Your task to perform on an android device: empty trash in the gmail app Image 0: 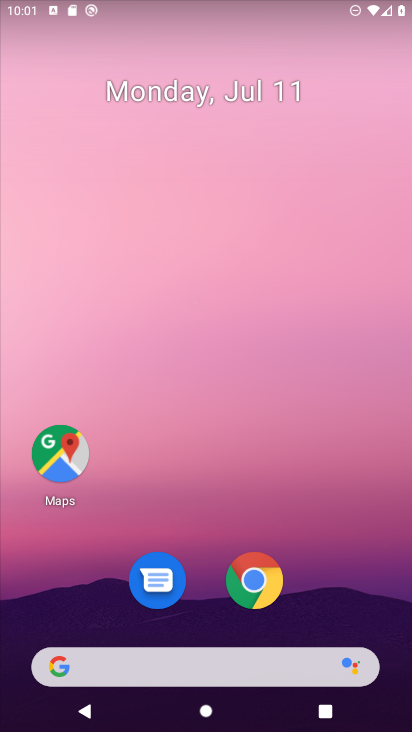
Step 0: drag from (311, 584) to (291, 45)
Your task to perform on an android device: empty trash in the gmail app Image 1: 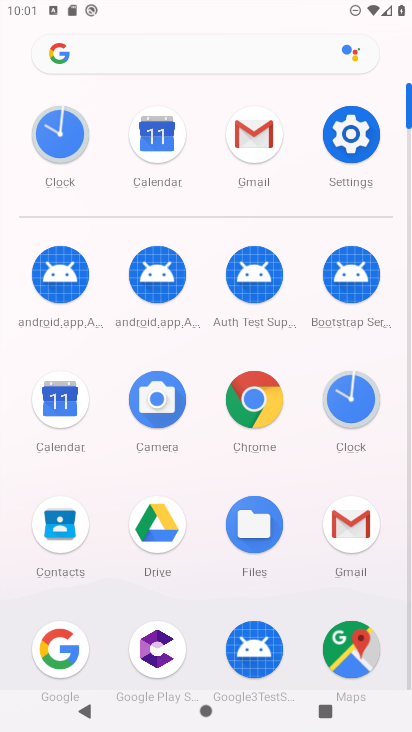
Step 1: click (268, 134)
Your task to perform on an android device: empty trash in the gmail app Image 2: 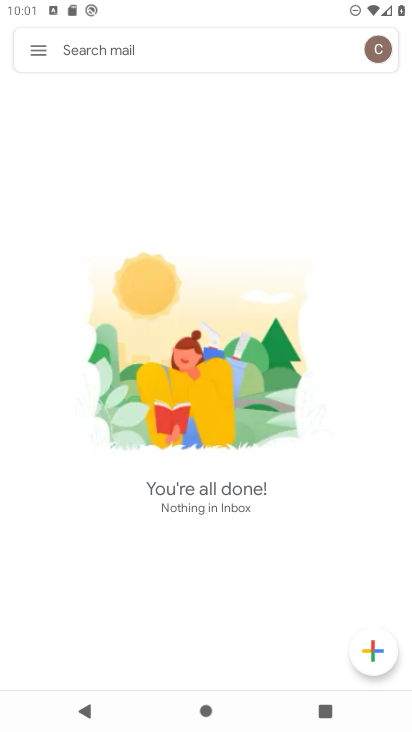
Step 2: click (35, 50)
Your task to perform on an android device: empty trash in the gmail app Image 3: 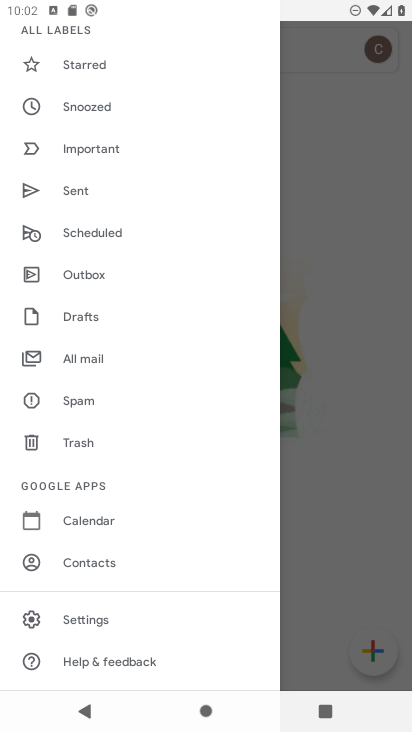
Step 3: click (86, 442)
Your task to perform on an android device: empty trash in the gmail app Image 4: 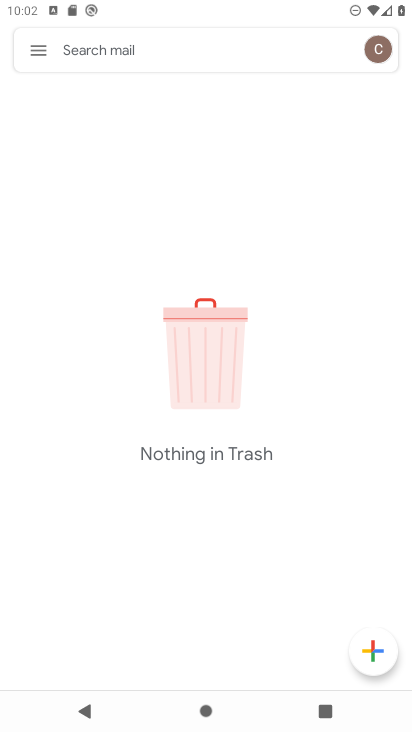
Step 4: task complete